Your task to perform on an android device: toggle javascript in the chrome app Image 0: 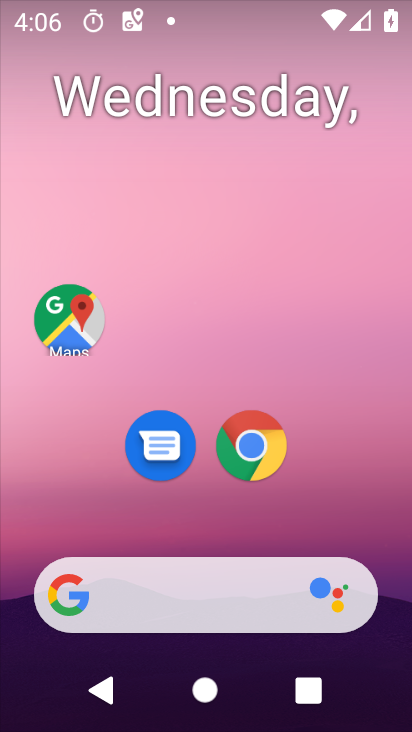
Step 0: click (245, 440)
Your task to perform on an android device: toggle javascript in the chrome app Image 1: 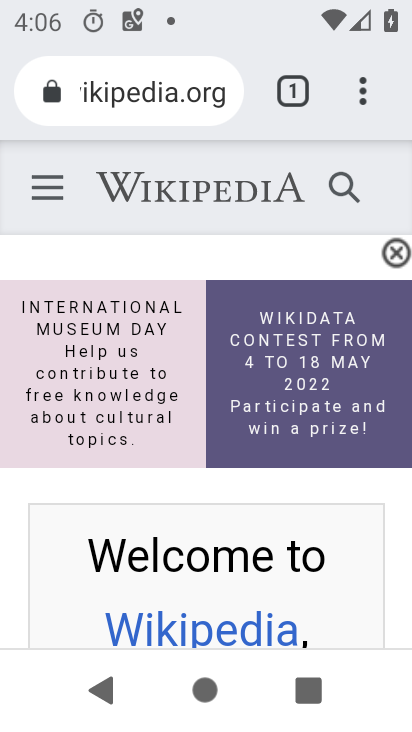
Step 1: click (349, 96)
Your task to perform on an android device: toggle javascript in the chrome app Image 2: 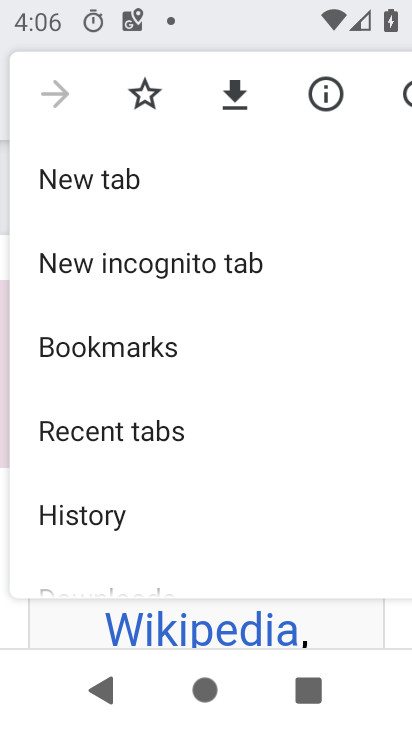
Step 2: drag from (231, 536) to (233, 69)
Your task to perform on an android device: toggle javascript in the chrome app Image 3: 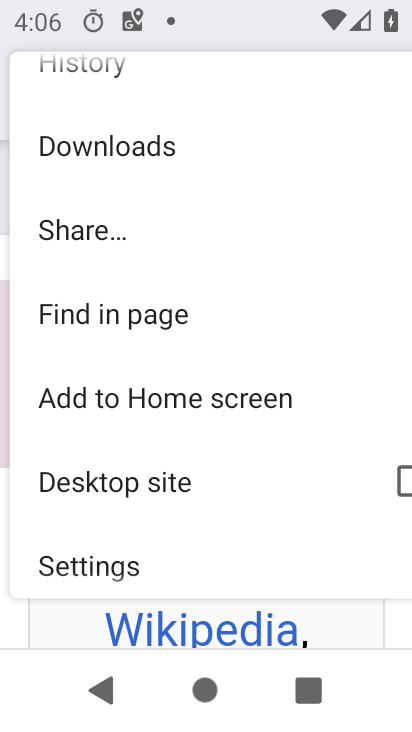
Step 3: drag from (186, 537) to (205, 252)
Your task to perform on an android device: toggle javascript in the chrome app Image 4: 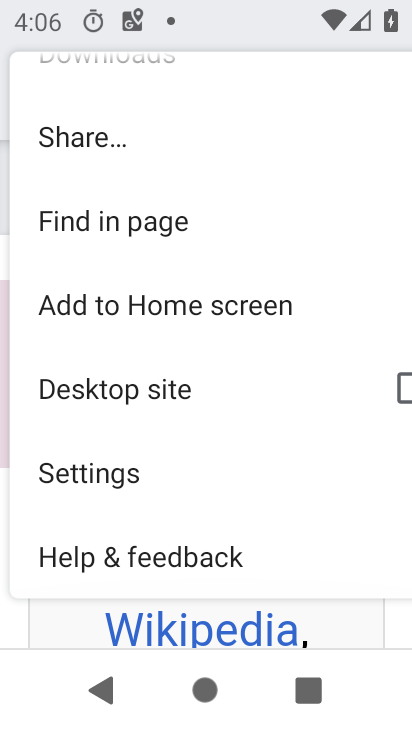
Step 4: click (93, 471)
Your task to perform on an android device: toggle javascript in the chrome app Image 5: 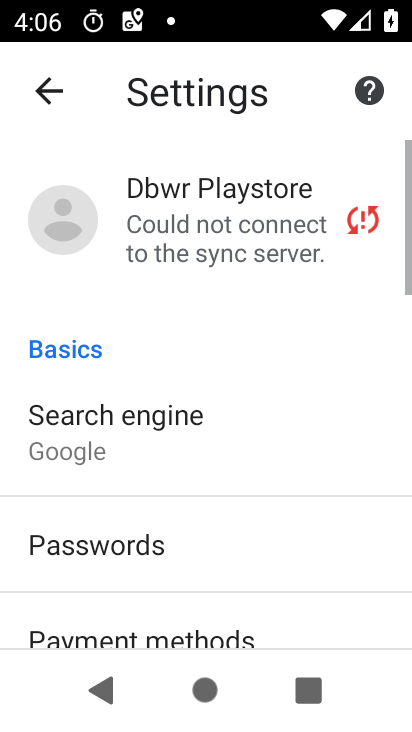
Step 5: drag from (233, 506) to (308, 93)
Your task to perform on an android device: toggle javascript in the chrome app Image 6: 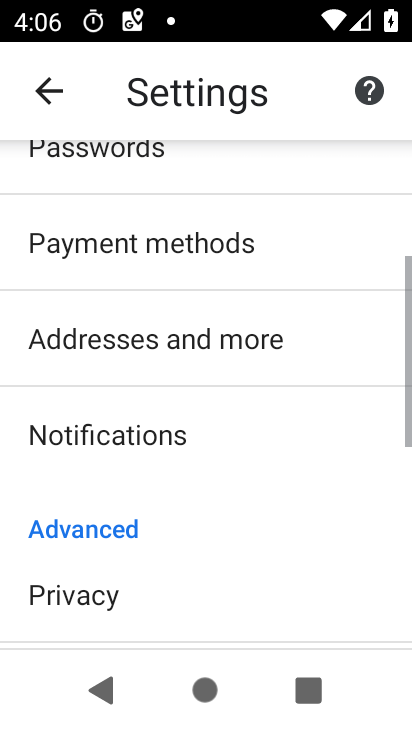
Step 6: drag from (158, 571) to (153, 218)
Your task to perform on an android device: toggle javascript in the chrome app Image 7: 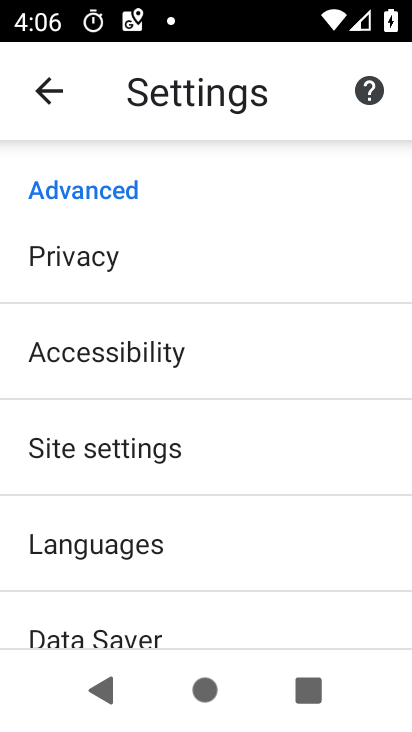
Step 7: click (87, 475)
Your task to perform on an android device: toggle javascript in the chrome app Image 8: 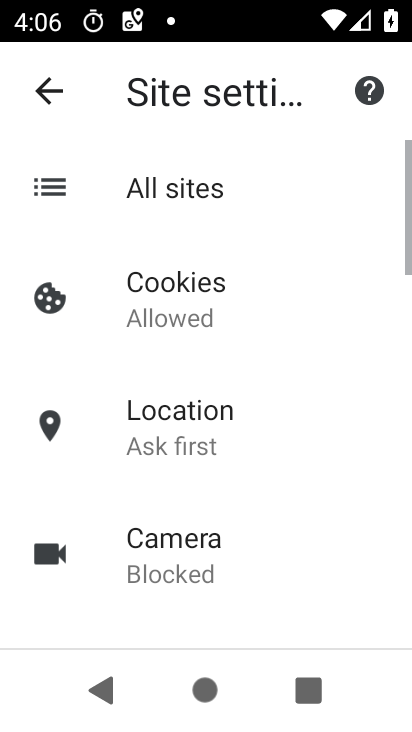
Step 8: drag from (221, 516) to (252, 118)
Your task to perform on an android device: toggle javascript in the chrome app Image 9: 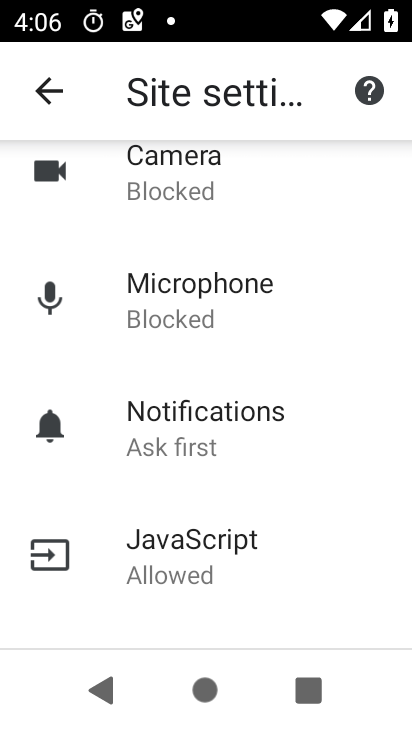
Step 9: click (166, 591)
Your task to perform on an android device: toggle javascript in the chrome app Image 10: 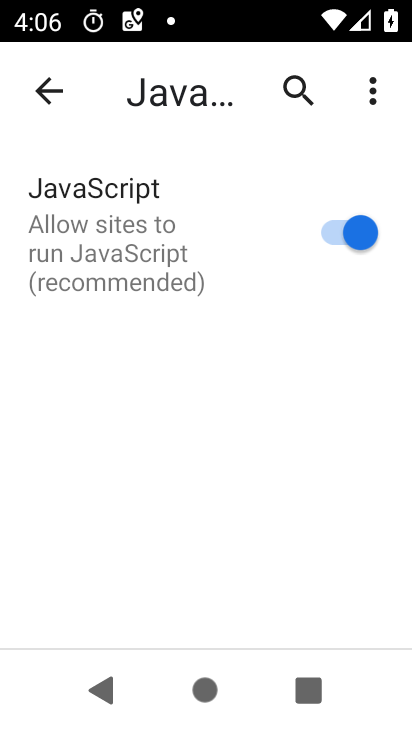
Step 10: click (332, 222)
Your task to perform on an android device: toggle javascript in the chrome app Image 11: 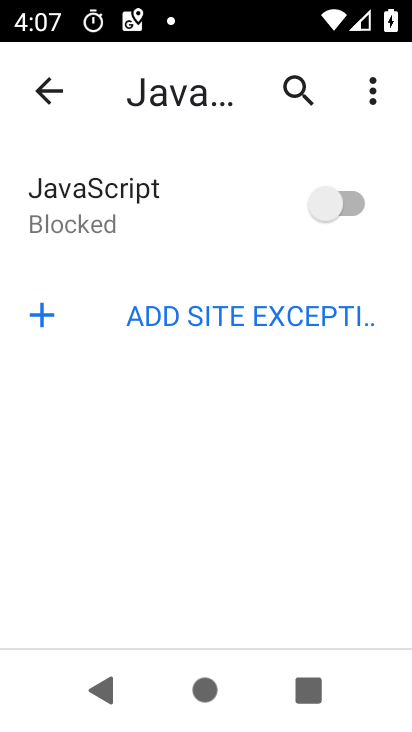
Step 11: task complete